Your task to perform on an android device: move a message to another label in the gmail app Image 0: 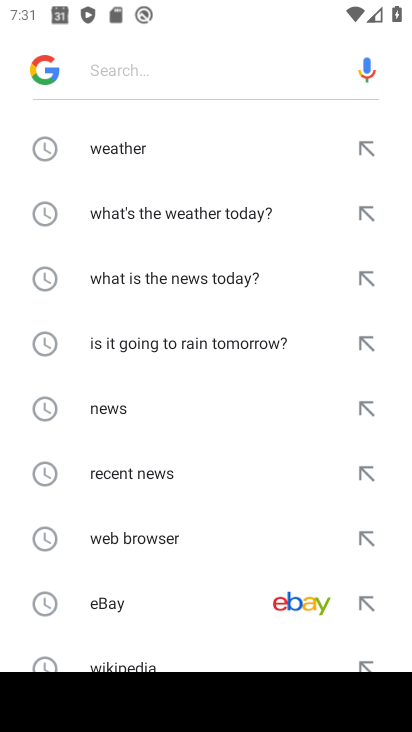
Step 0: press back button
Your task to perform on an android device: move a message to another label in the gmail app Image 1: 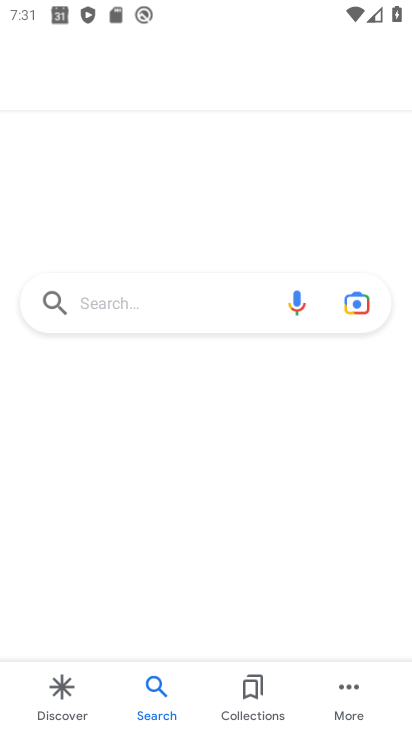
Step 1: press back button
Your task to perform on an android device: move a message to another label in the gmail app Image 2: 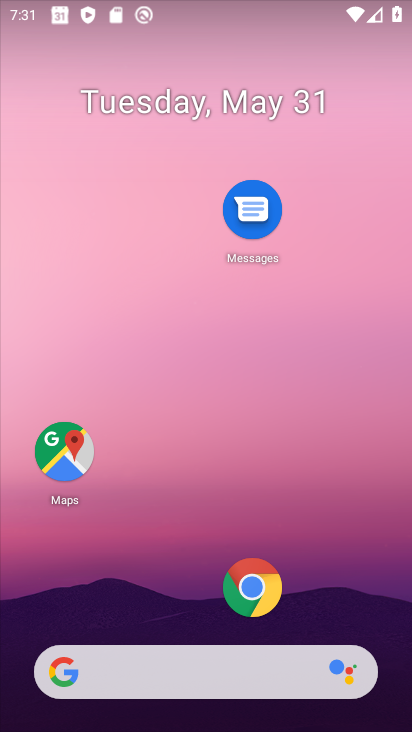
Step 2: drag from (143, 592) to (242, 196)
Your task to perform on an android device: move a message to another label in the gmail app Image 3: 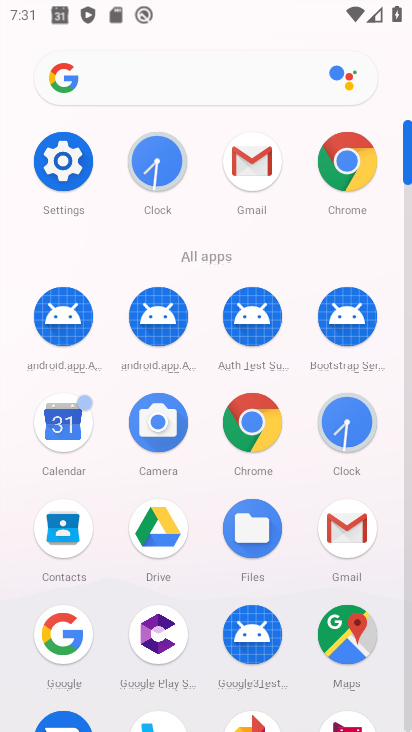
Step 3: click (260, 198)
Your task to perform on an android device: move a message to another label in the gmail app Image 4: 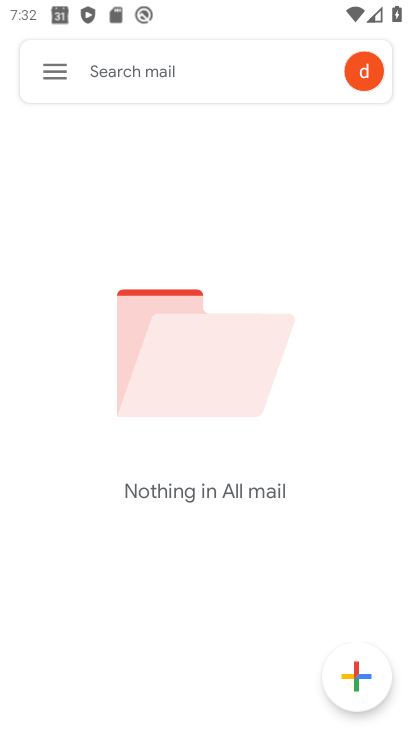
Step 4: task complete